Your task to perform on an android device: find which apps use the phone's location Image 0: 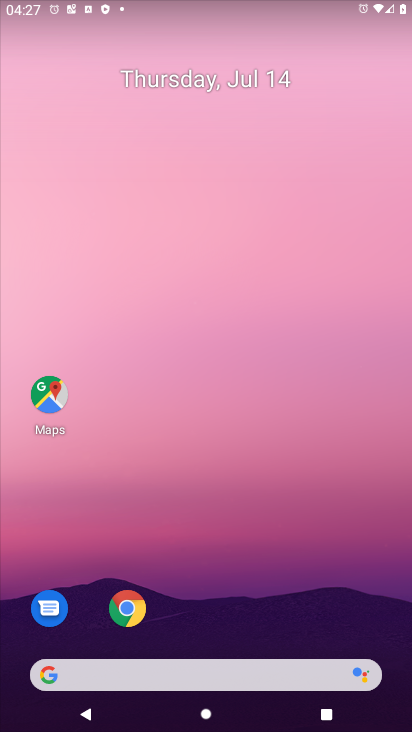
Step 0: drag from (382, 620) to (348, 157)
Your task to perform on an android device: find which apps use the phone's location Image 1: 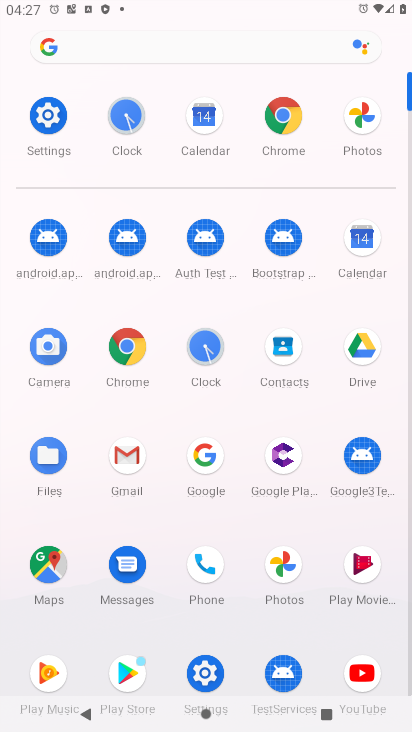
Step 1: click (202, 671)
Your task to perform on an android device: find which apps use the phone's location Image 2: 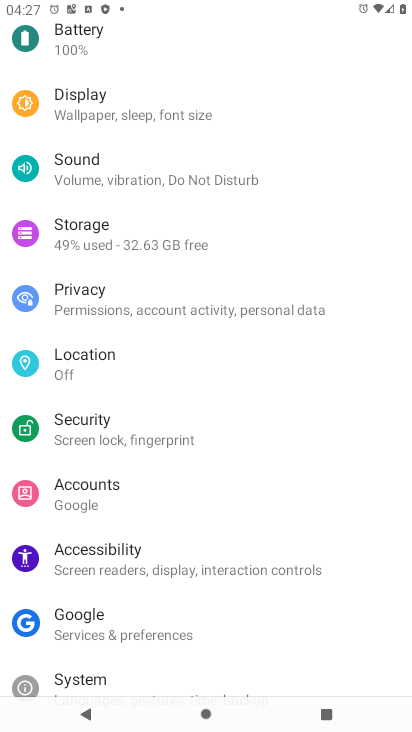
Step 2: click (66, 361)
Your task to perform on an android device: find which apps use the phone's location Image 3: 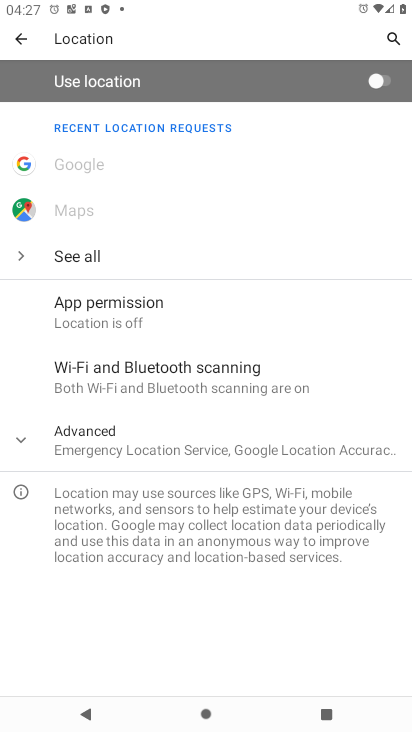
Step 3: click (16, 446)
Your task to perform on an android device: find which apps use the phone's location Image 4: 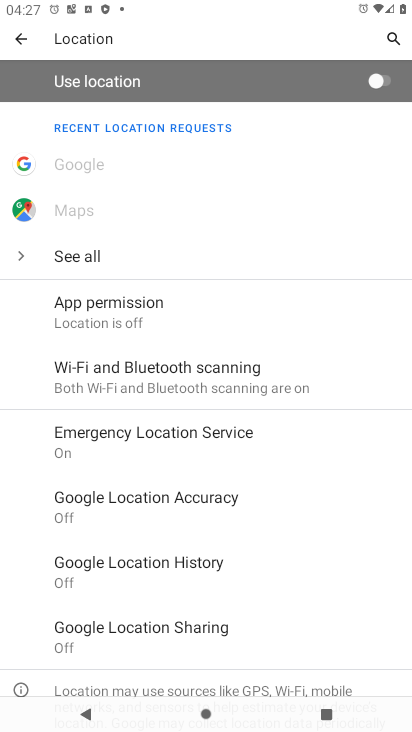
Step 4: click (90, 304)
Your task to perform on an android device: find which apps use the phone's location Image 5: 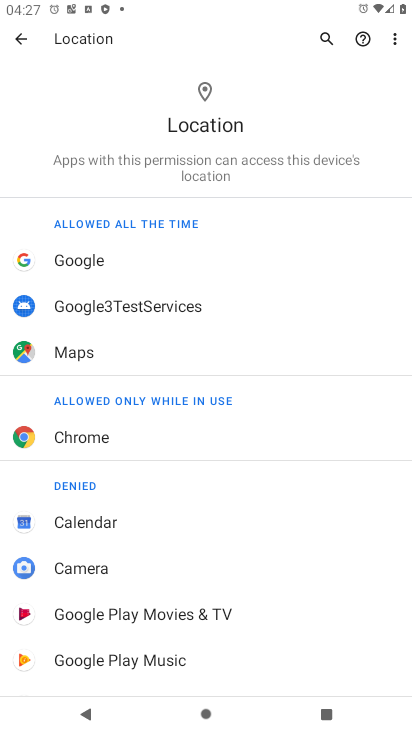
Step 5: drag from (248, 654) to (264, 262)
Your task to perform on an android device: find which apps use the phone's location Image 6: 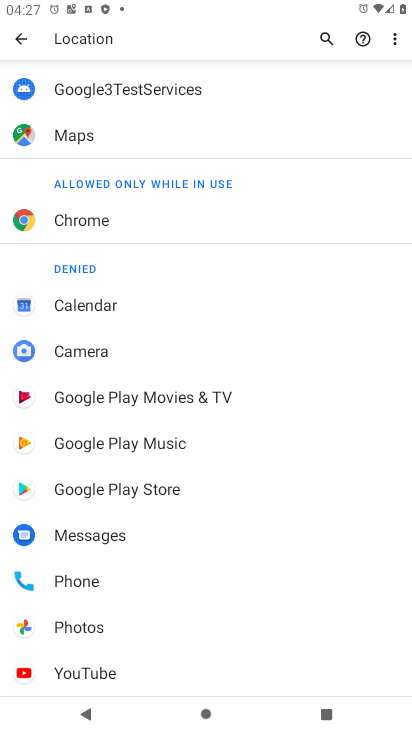
Step 6: click (77, 617)
Your task to perform on an android device: find which apps use the phone's location Image 7: 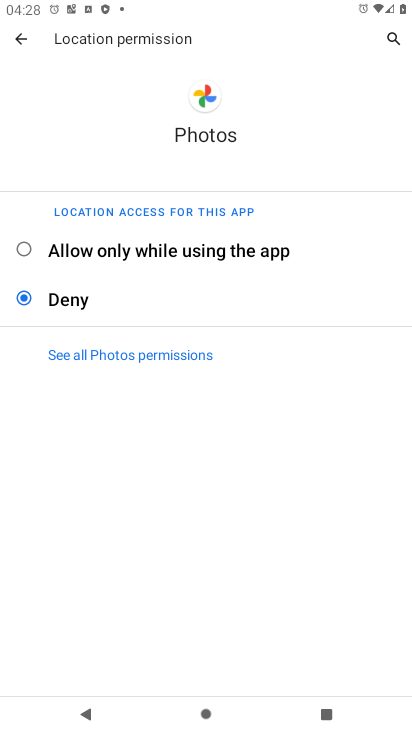
Step 7: task complete